Your task to perform on an android device: Open Wikipedia Image 0: 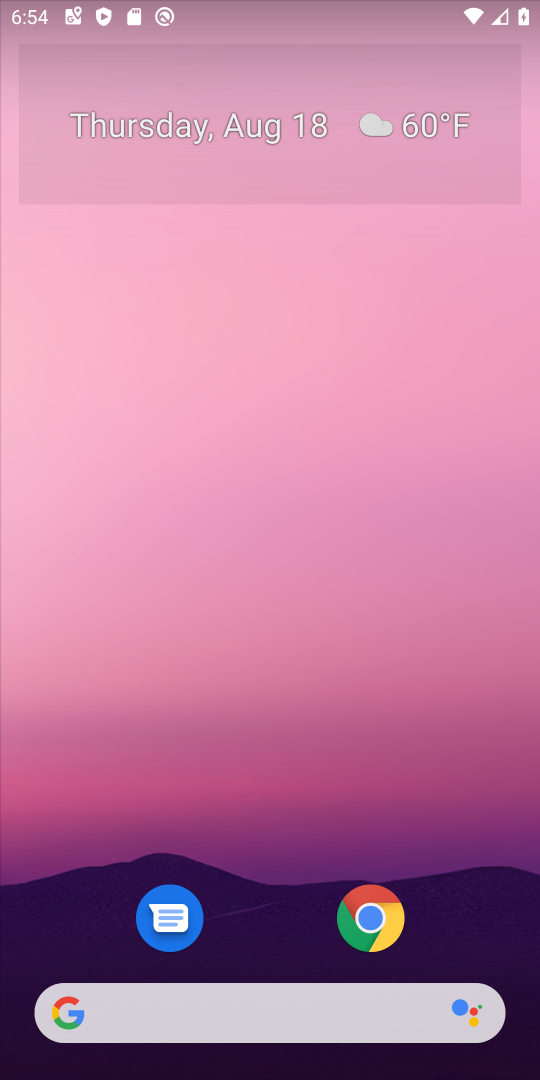
Step 0: press home button
Your task to perform on an android device: Open Wikipedia Image 1: 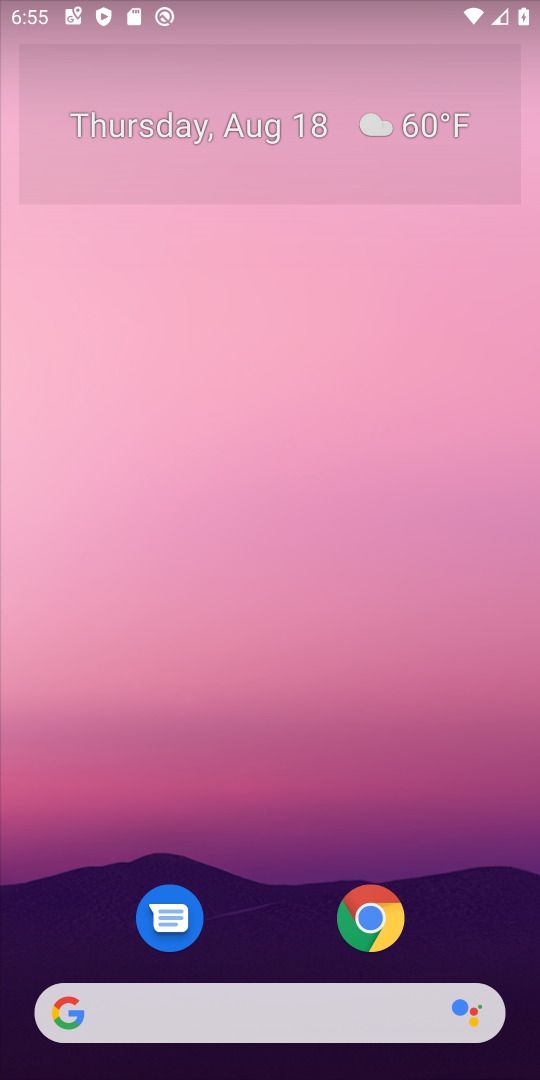
Step 1: click (80, 1028)
Your task to perform on an android device: Open Wikipedia Image 2: 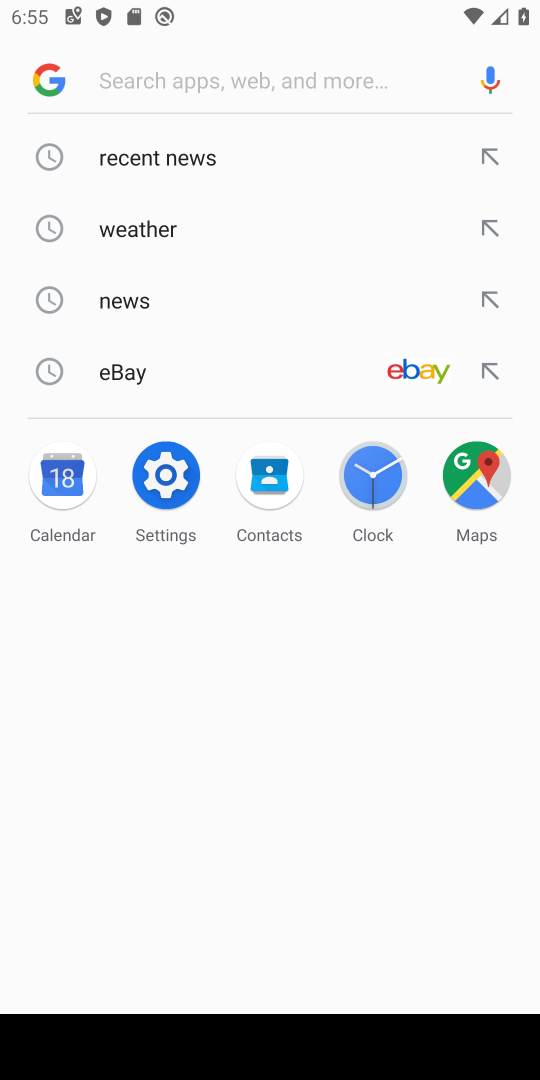
Step 2: type "Wikipedia"
Your task to perform on an android device: Open Wikipedia Image 3: 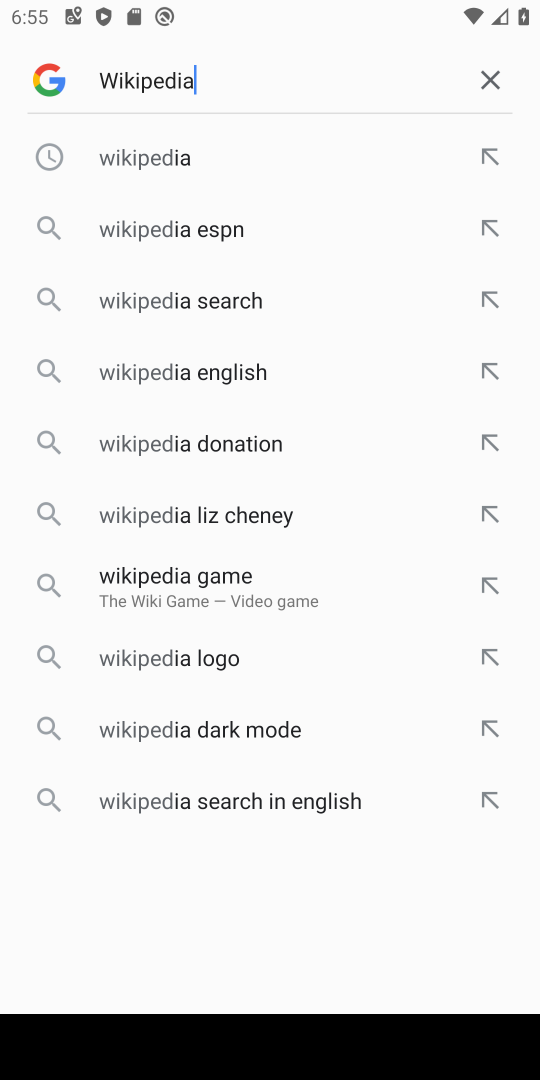
Step 3: press enter
Your task to perform on an android device: Open Wikipedia Image 4: 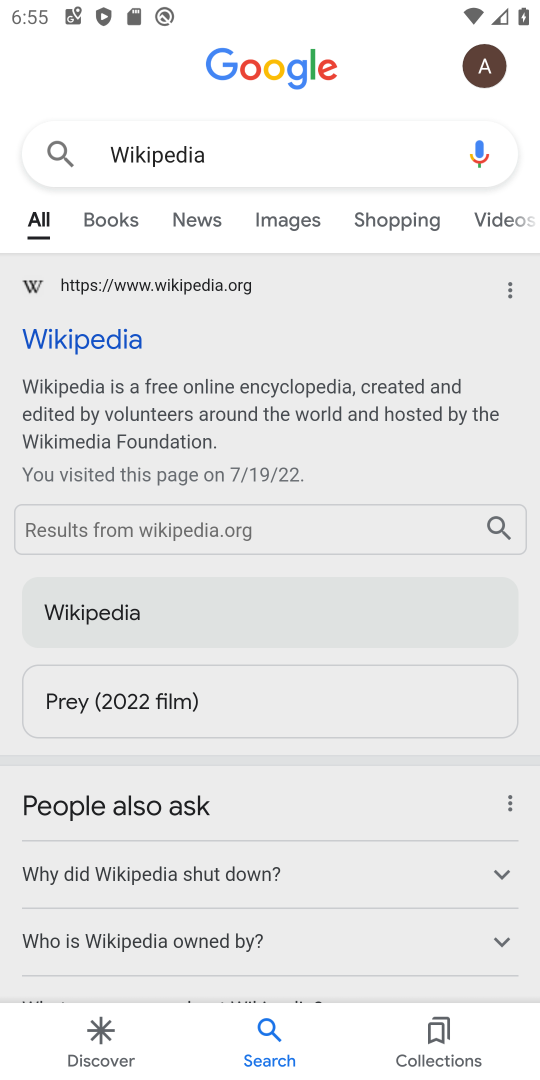
Step 4: click (71, 343)
Your task to perform on an android device: Open Wikipedia Image 5: 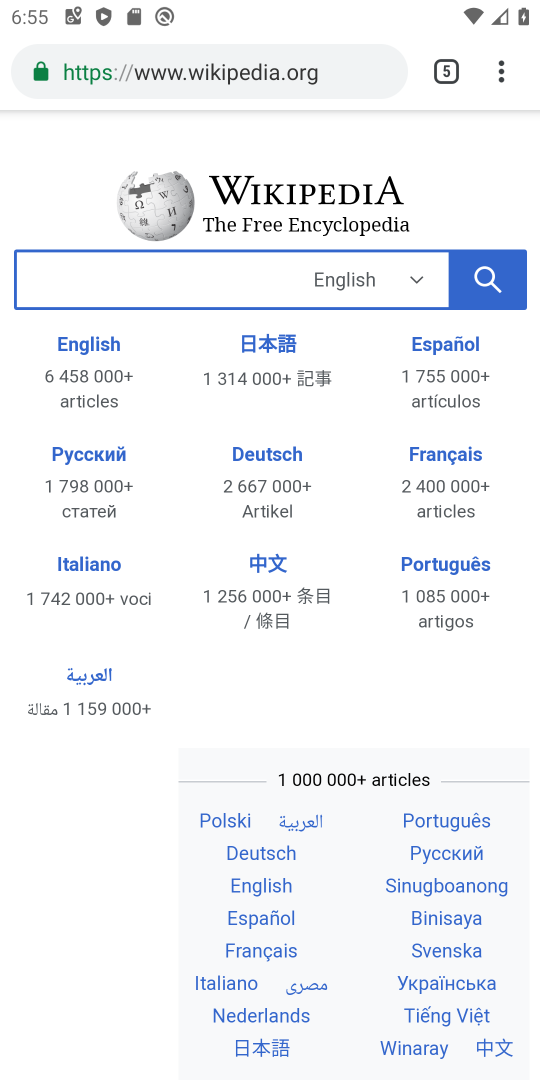
Step 5: task complete